Your task to perform on an android device: Search for "amazon basics triple a" on bestbuy, select the first entry, add it to the cart, then select checkout. Image 0: 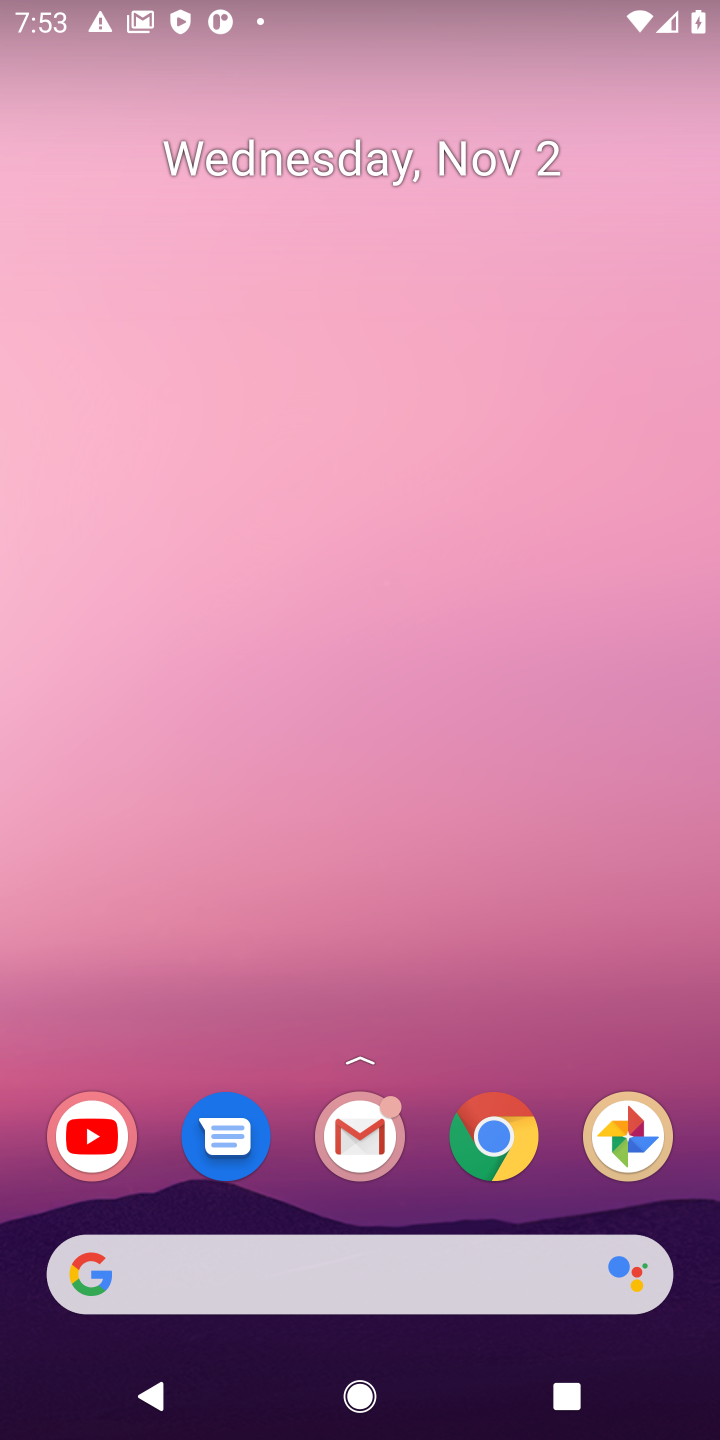
Step 0: drag from (313, 1153) to (315, 95)
Your task to perform on an android device: Search for "amazon basics triple a" on bestbuy, select the first entry, add it to the cart, then select checkout. Image 1: 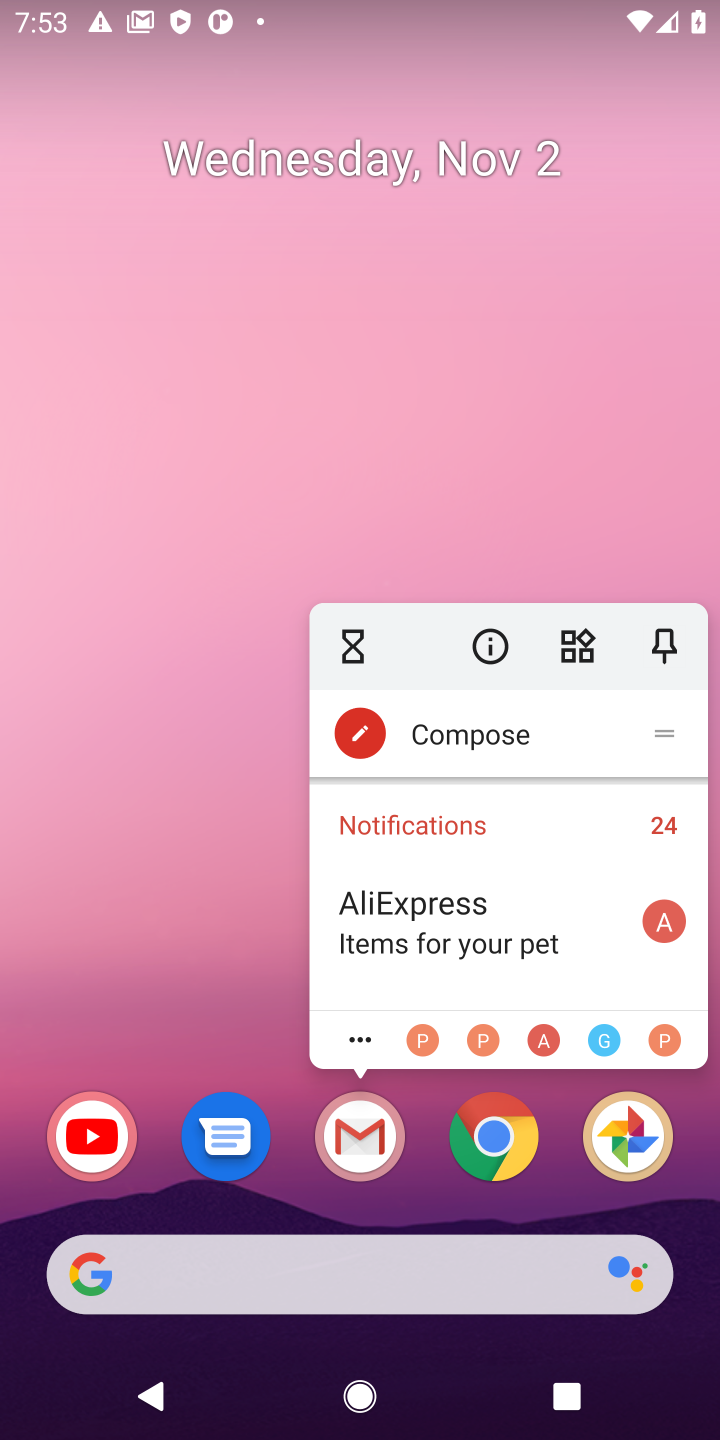
Step 1: click (170, 548)
Your task to perform on an android device: Search for "amazon basics triple a" on bestbuy, select the first entry, add it to the cart, then select checkout. Image 2: 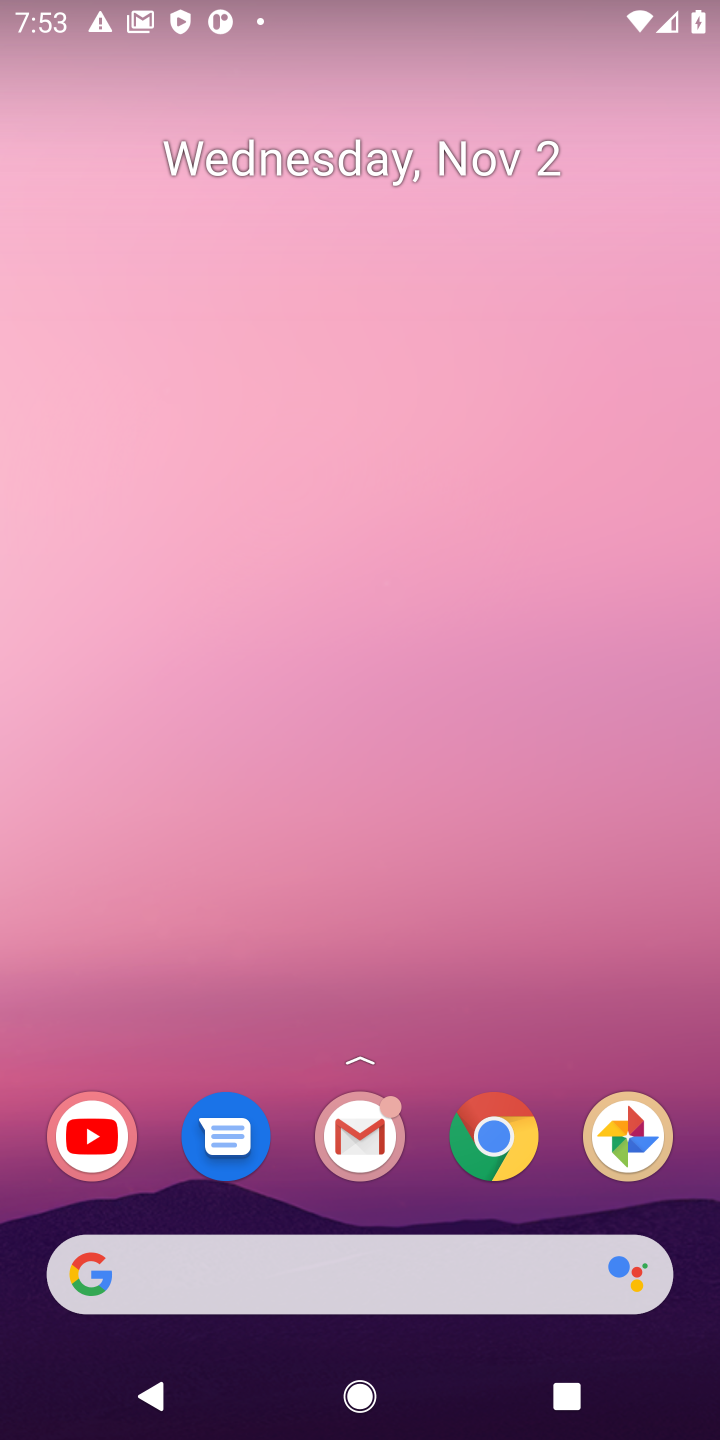
Step 2: drag from (336, 823) to (354, 144)
Your task to perform on an android device: Search for "amazon basics triple a" on bestbuy, select the first entry, add it to the cart, then select checkout. Image 3: 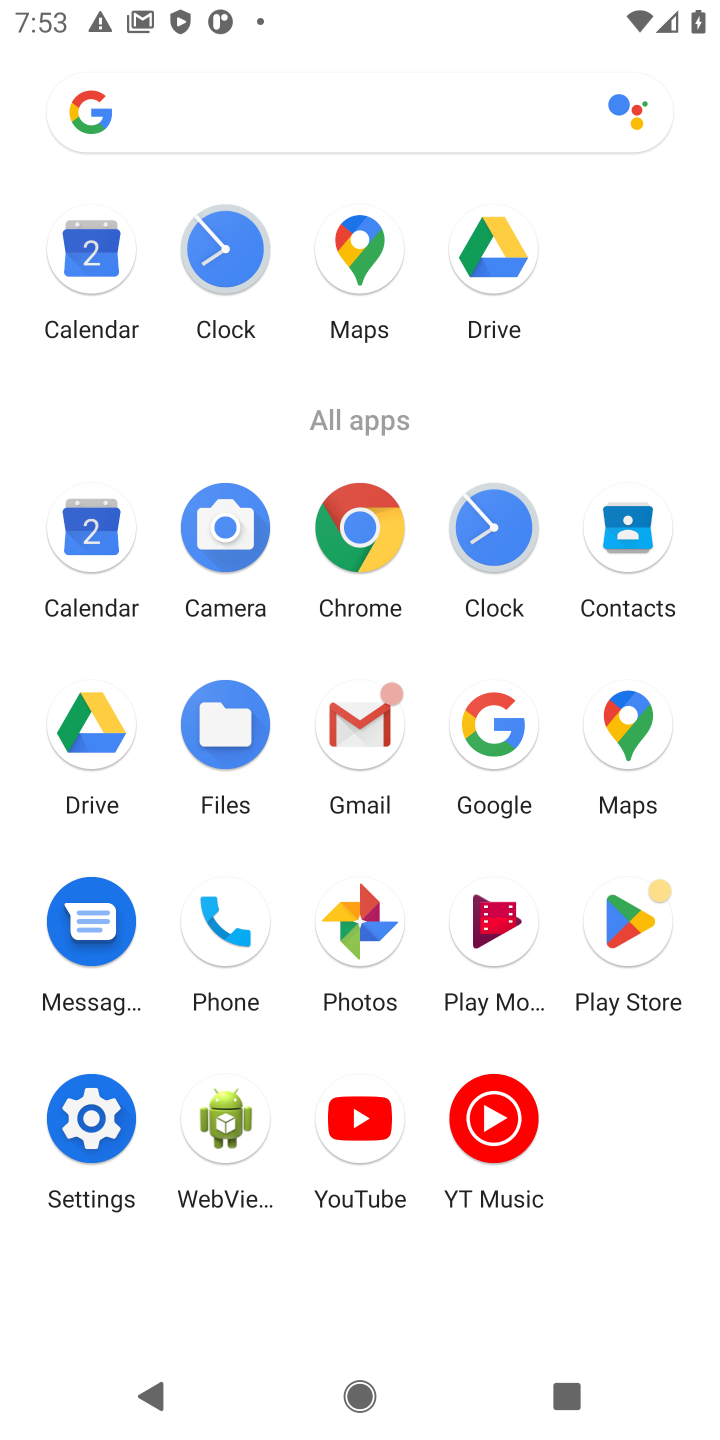
Step 3: click (488, 731)
Your task to perform on an android device: Search for "amazon basics triple a" on bestbuy, select the first entry, add it to the cart, then select checkout. Image 4: 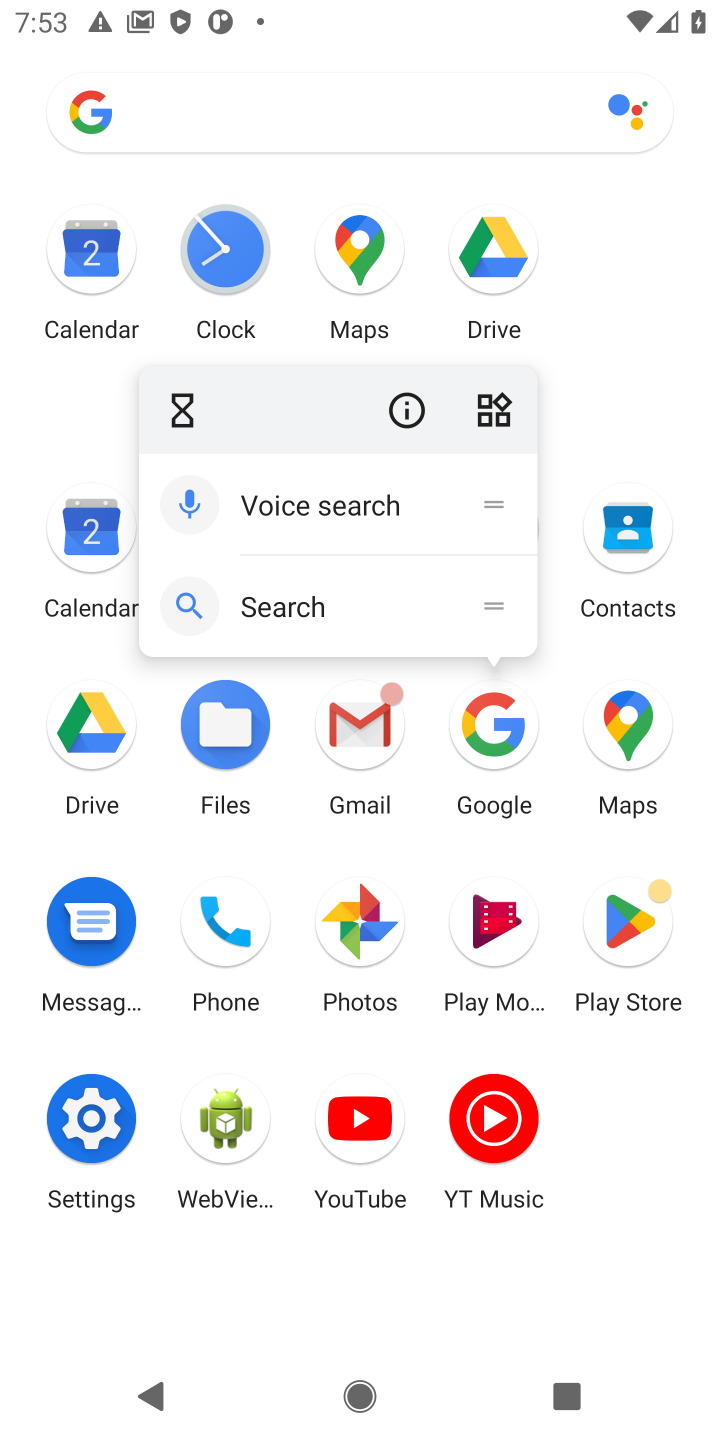
Step 4: click (470, 723)
Your task to perform on an android device: Search for "amazon basics triple a" on bestbuy, select the first entry, add it to the cart, then select checkout. Image 5: 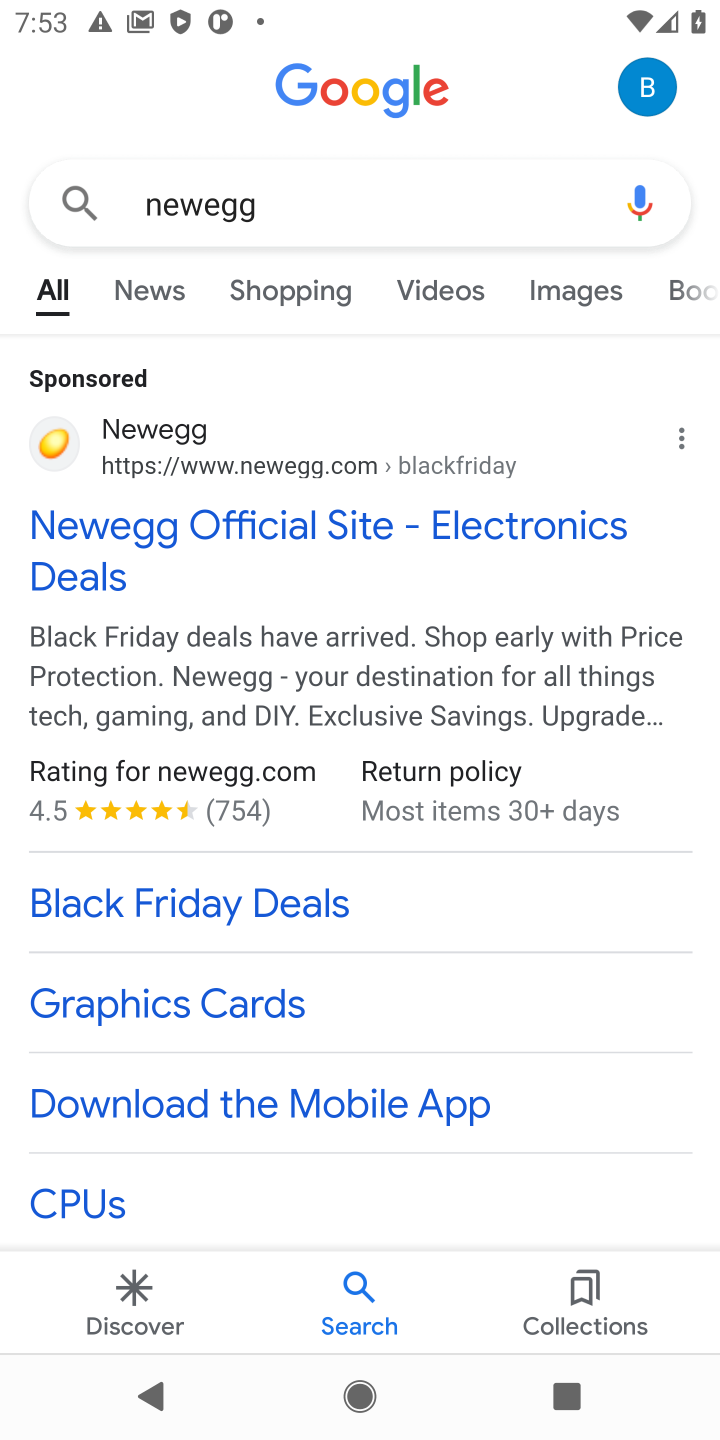
Step 5: click (308, 187)
Your task to perform on an android device: Search for "amazon basics triple a" on bestbuy, select the first entry, add it to the cart, then select checkout. Image 6: 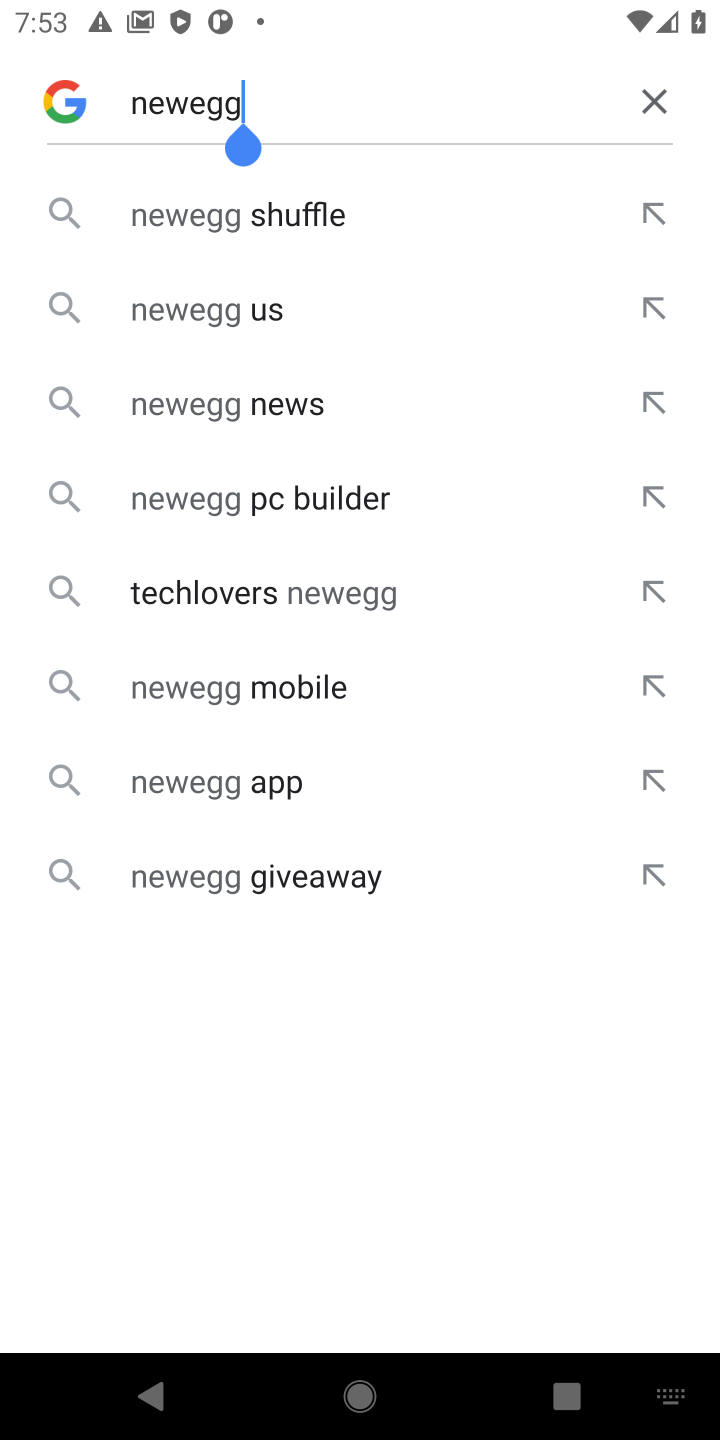
Step 6: click (654, 98)
Your task to perform on an android device: Search for "amazon basics triple a" on bestbuy, select the first entry, add it to the cart, then select checkout. Image 7: 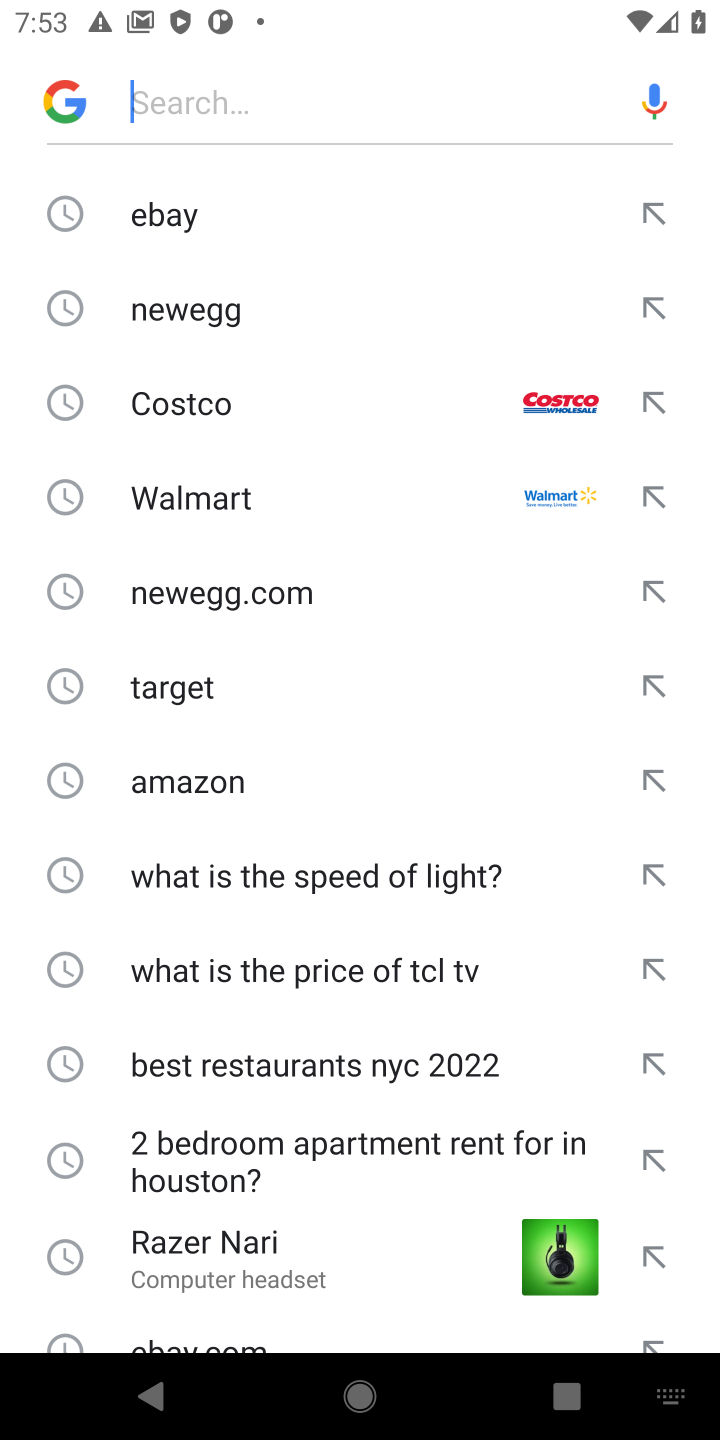
Step 7: click (338, 99)
Your task to perform on an android device: Search for "amazon basics triple a" on bestbuy, select the first entry, add it to the cart, then select checkout. Image 8: 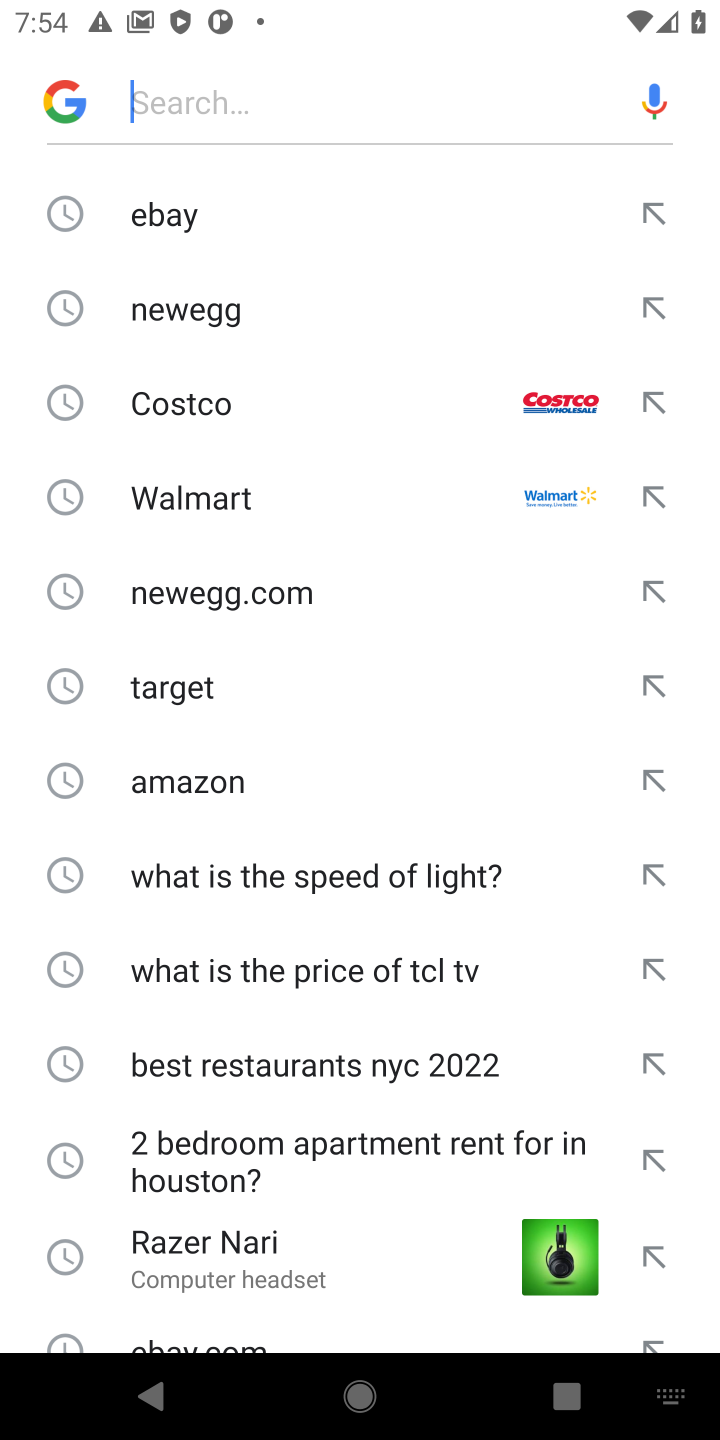
Step 8: type "bestbuy "
Your task to perform on an android device: Search for "amazon basics triple a" on bestbuy, select the first entry, add it to the cart, then select checkout. Image 9: 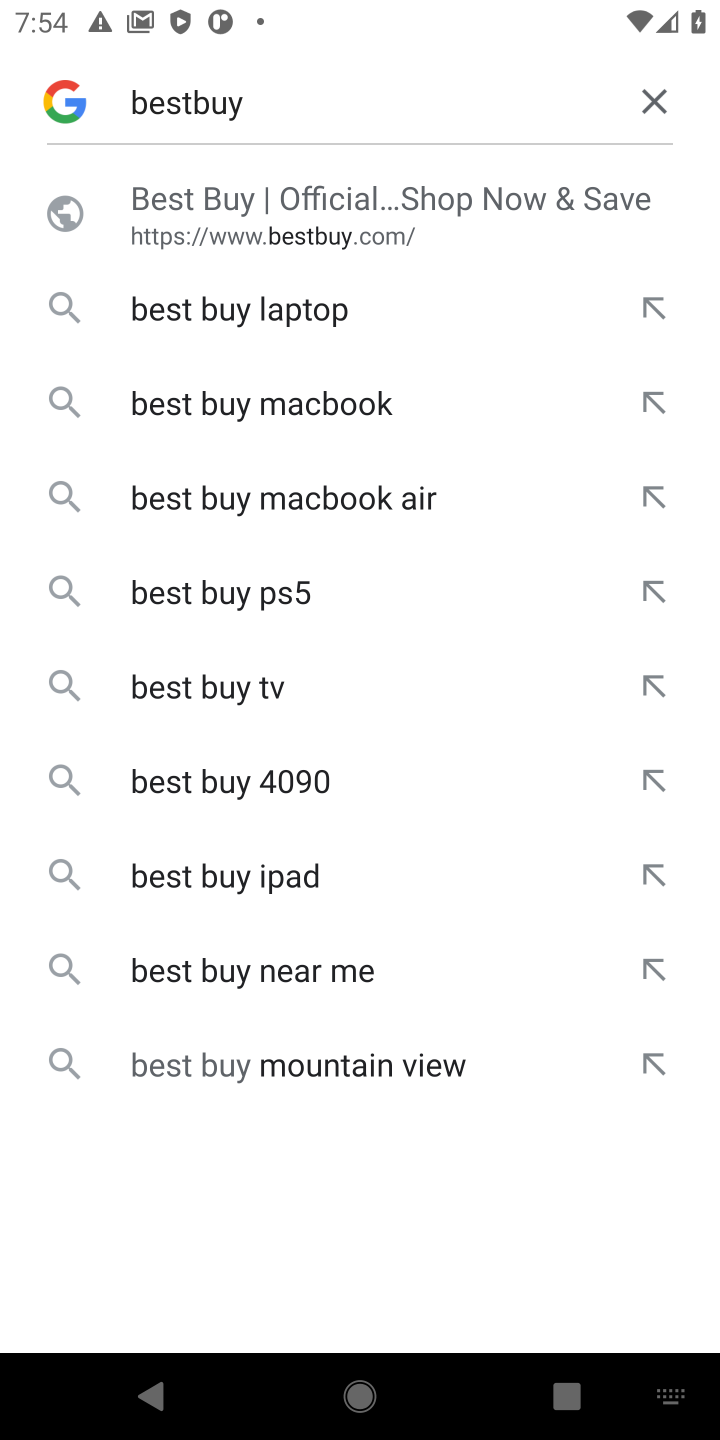
Step 9: click (300, 214)
Your task to perform on an android device: Search for "amazon basics triple a" on bestbuy, select the first entry, add it to the cart, then select checkout. Image 10: 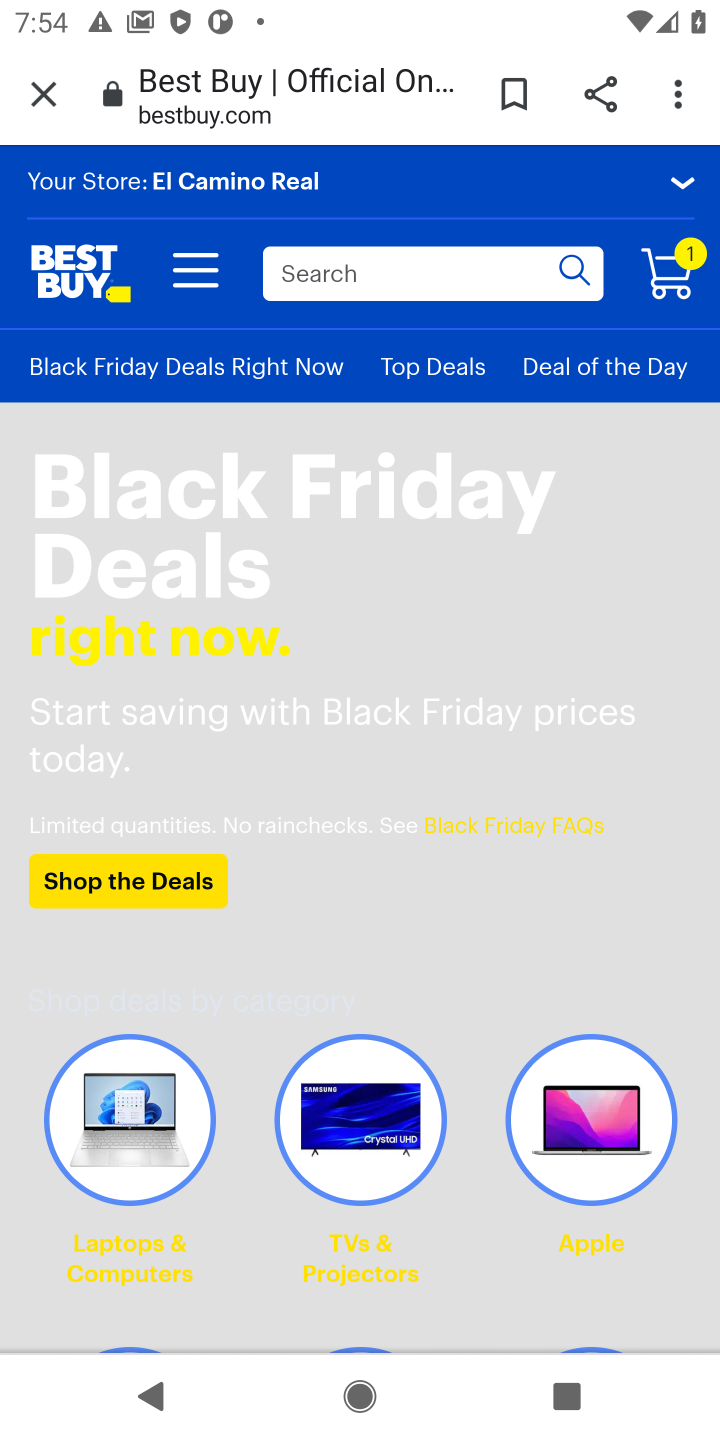
Step 10: click (414, 278)
Your task to perform on an android device: Search for "amazon basics triple a" on bestbuy, select the first entry, add it to the cart, then select checkout. Image 11: 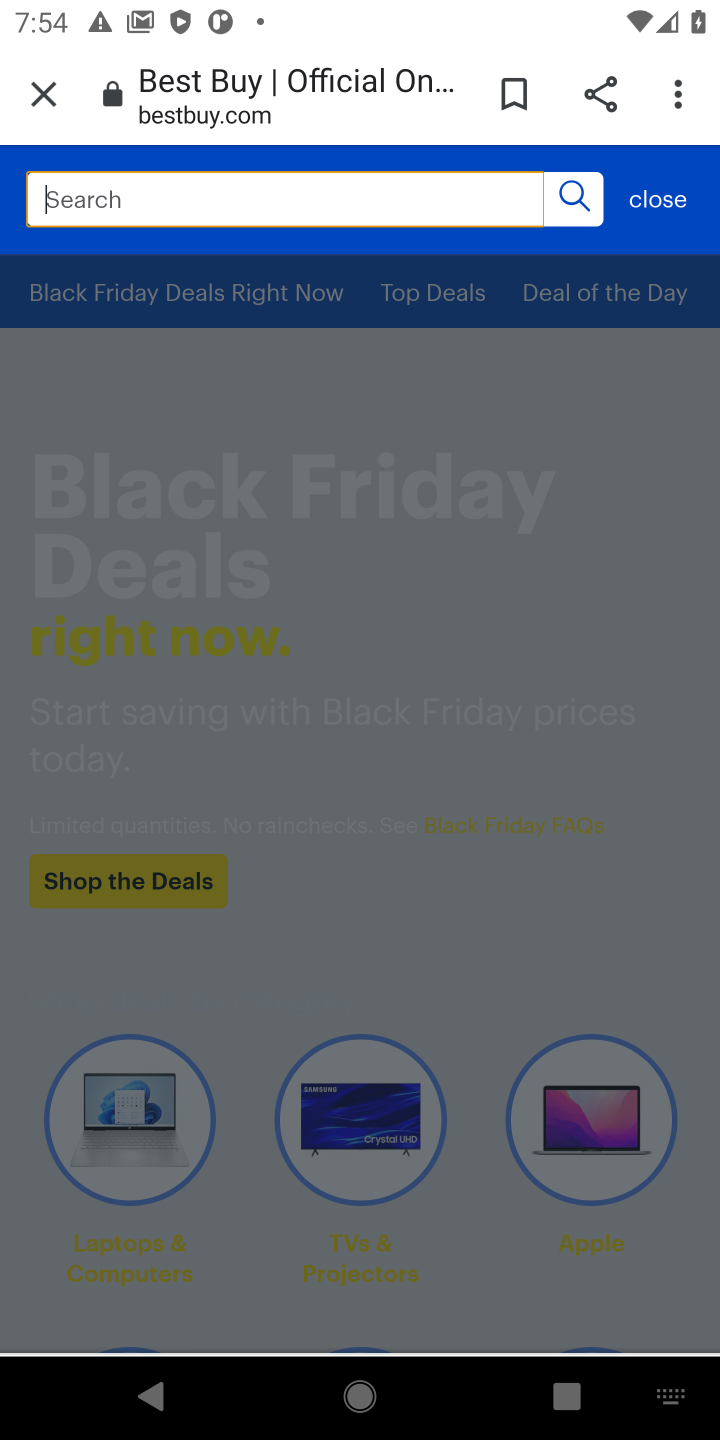
Step 11: click (406, 257)
Your task to perform on an android device: Search for "amazon basics triple a" on bestbuy, select the first entry, add it to the cart, then select checkout. Image 12: 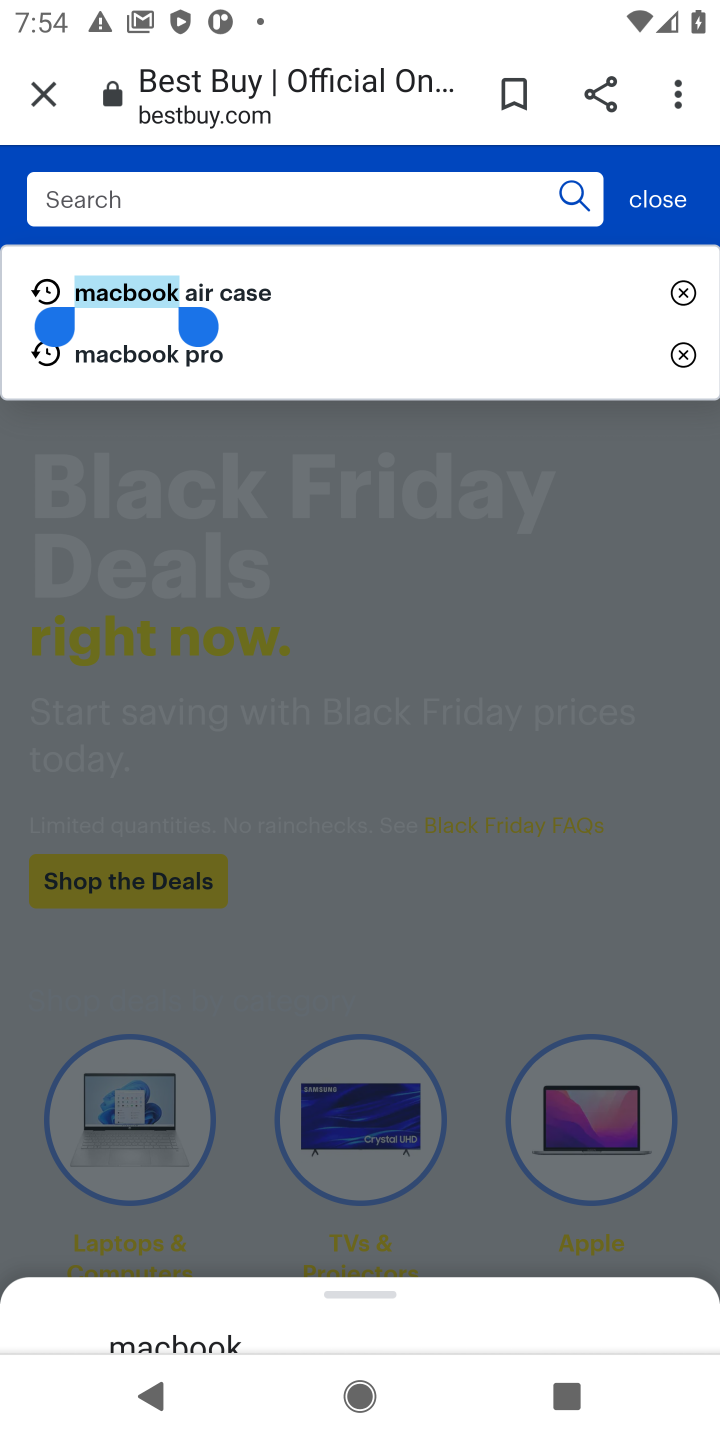
Step 12: click (368, 185)
Your task to perform on an android device: Search for "amazon basics triple a" on bestbuy, select the first entry, add it to the cart, then select checkout. Image 13: 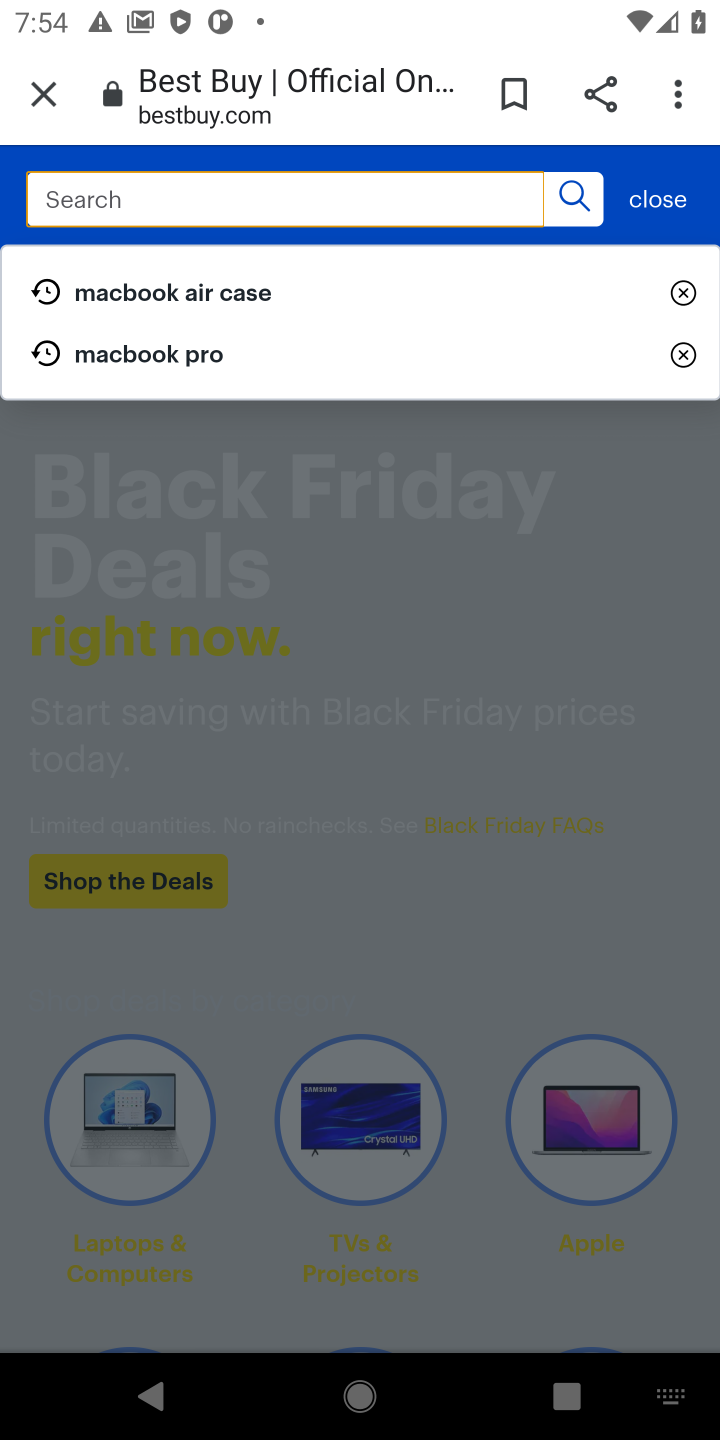
Step 13: type "amazon basics triple "
Your task to perform on an android device: Search for "amazon basics triple a" on bestbuy, select the first entry, add it to the cart, then select checkout. Image 14: 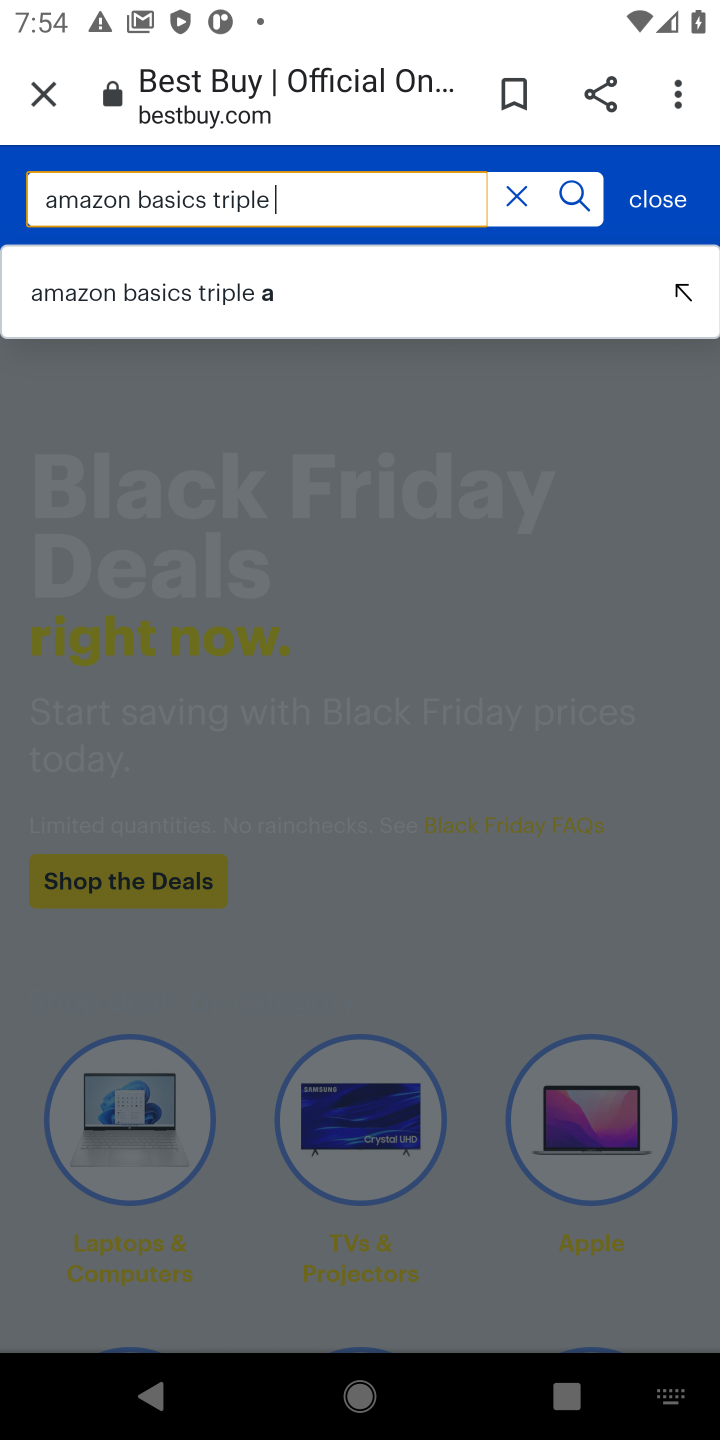
Step 14: click (206, 296)
Your task to perform on an android device: Search for "amazon basics triple a" on bestbuy, select the first entry, add it to the cart, then select checkout. Image 15: 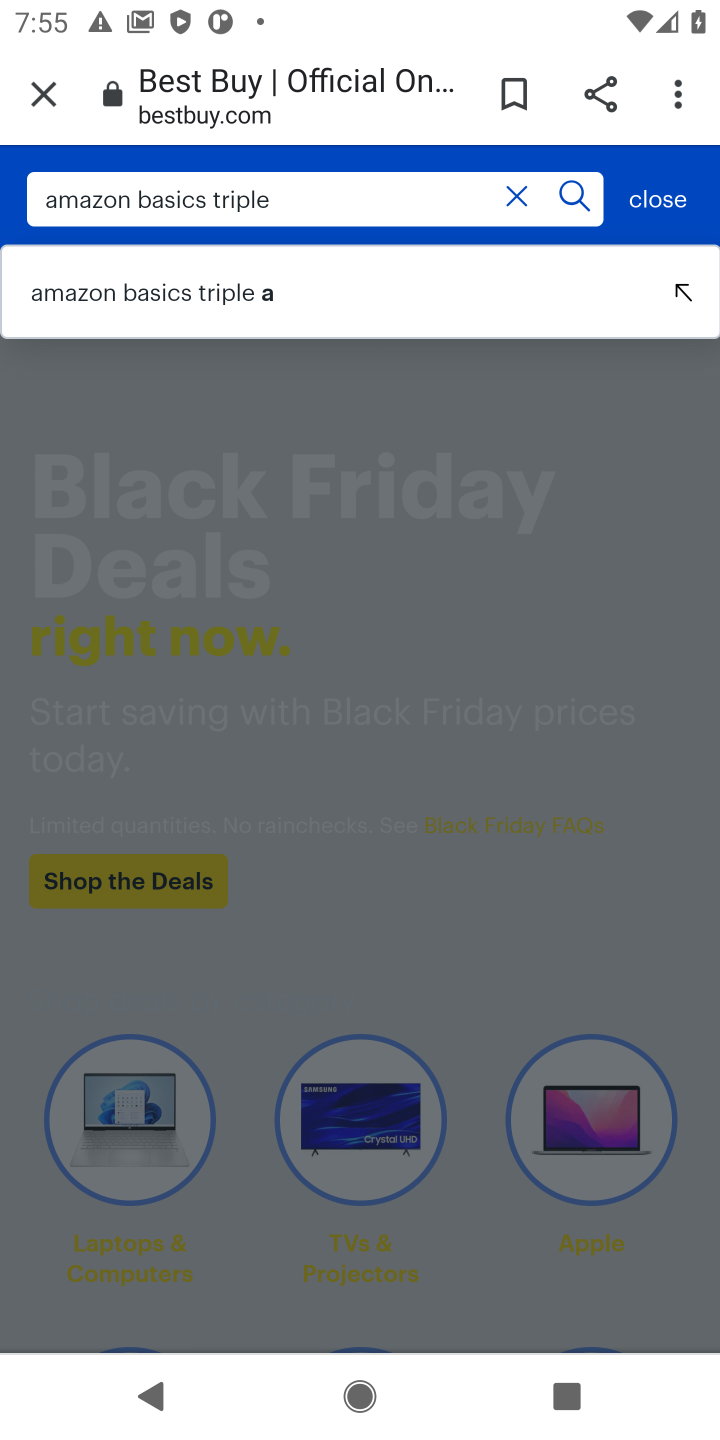
Step 15: click (686, 297)
Your task to perform on an android device: Search for "amazon basics triple a" on bestbuy, select the first entry, add it to the cart, then select checkout. Image 16: 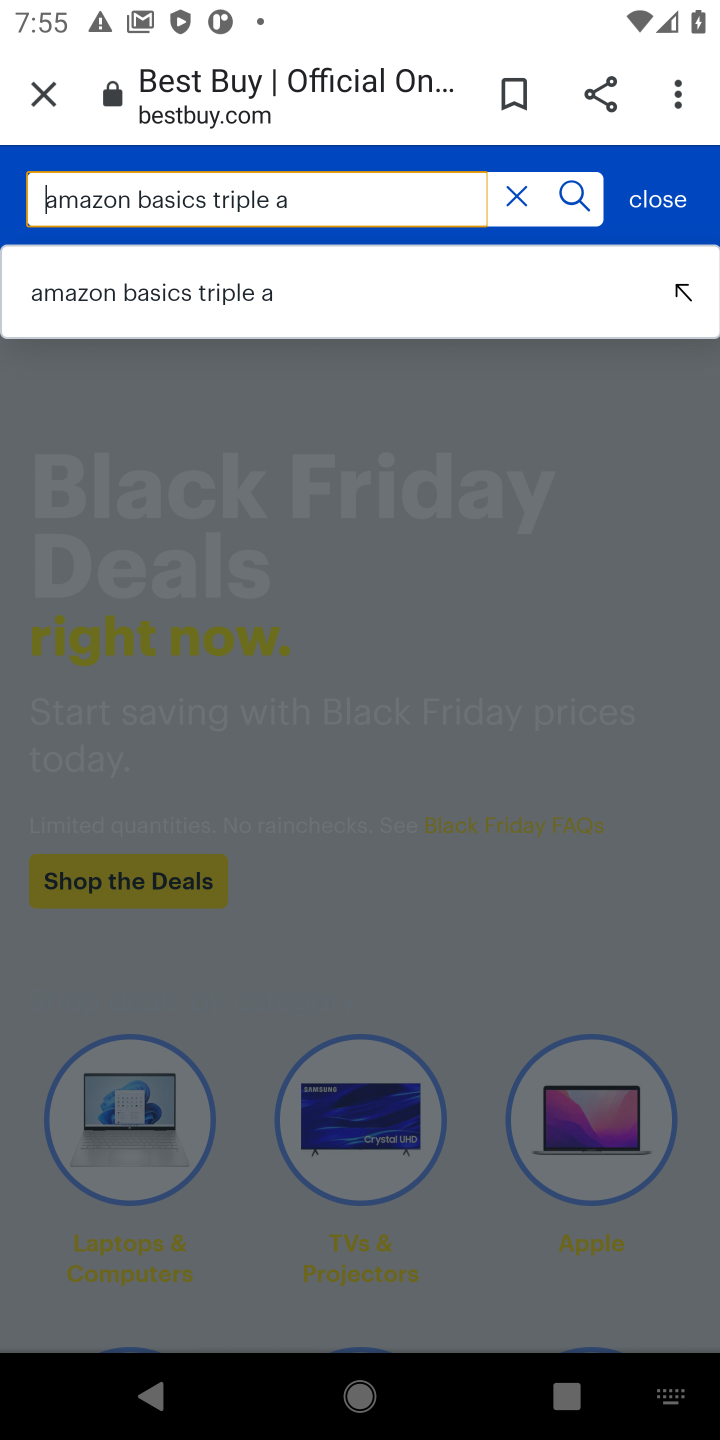
Step 16: click (440, 293)
Your task to perform on an android device: Search for "amazon basics triple a" on bestbuy, select the first entry, add it to the cart, then select checkout. Image 17: 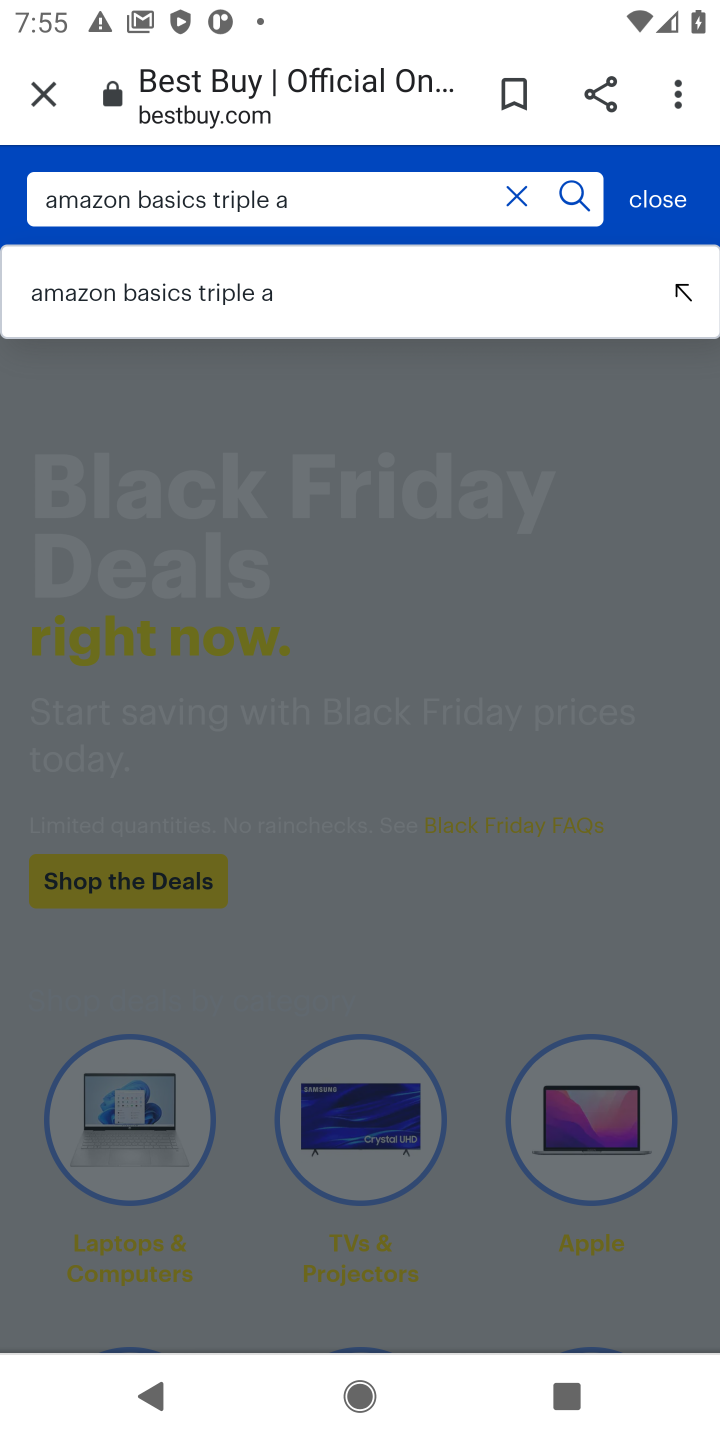
Step 17: click (440, 293)
Your task to perform on an android device: Search for "amazon basics triple a" on bestbuy, select the first entry, add it to the cart, then select checkout. Image 18: 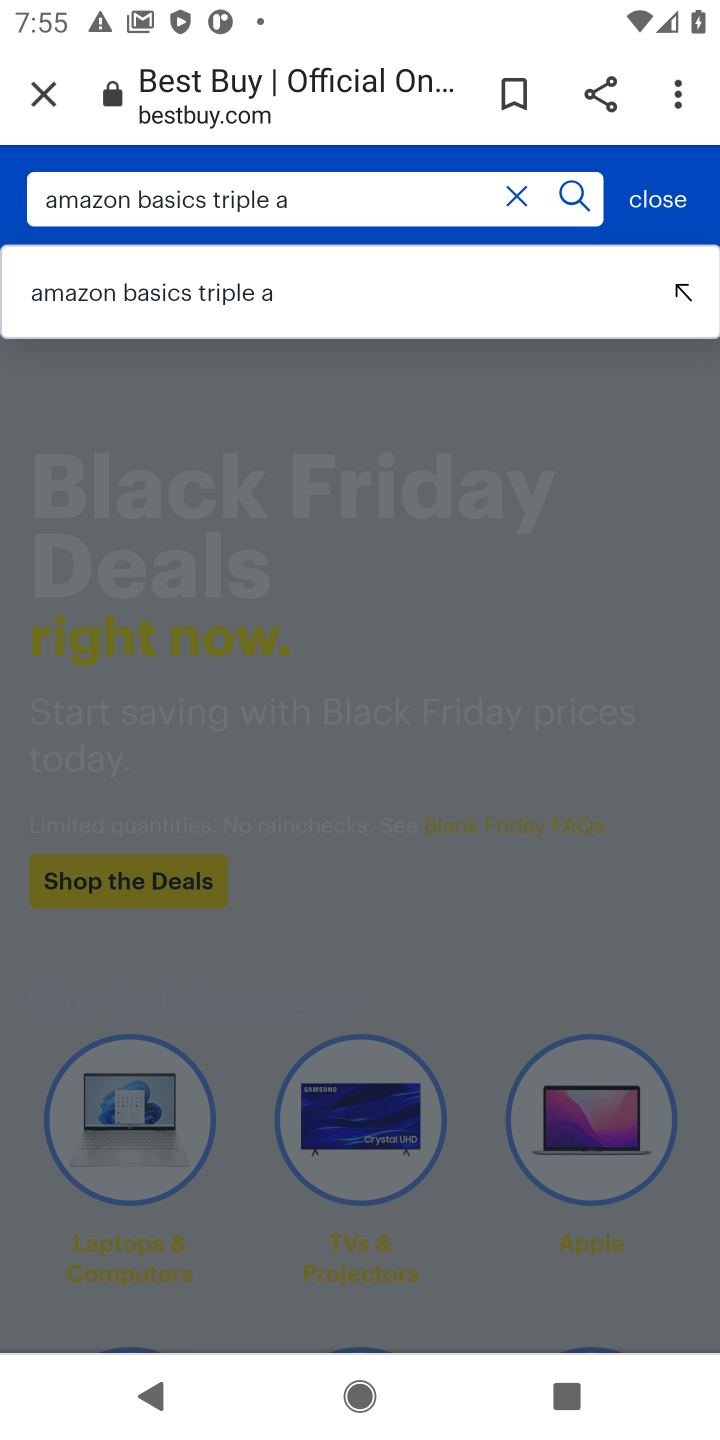
Step 18: click (584, 190)
Your task to perform on an android device: Search for "amazon basics triple a" on bestbuy, select the first entry, add it to the cart, then select checkout. Image 19: 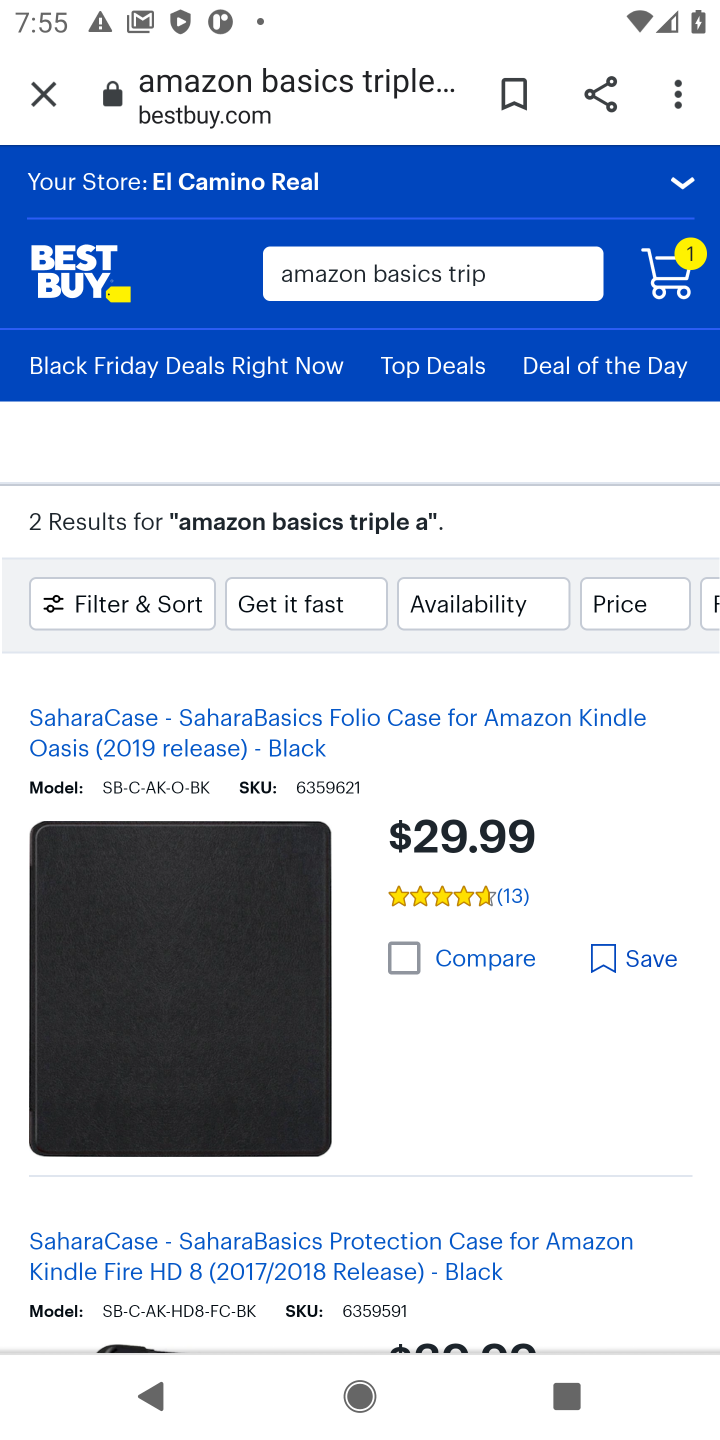
Step 19: drag from (587, 1134) to (649, 666)
Your task to perform on an android device: Search for "amazon basics triple a" on bestbuy, select the first entry, add it to the cart, then select checkout. Image 20: 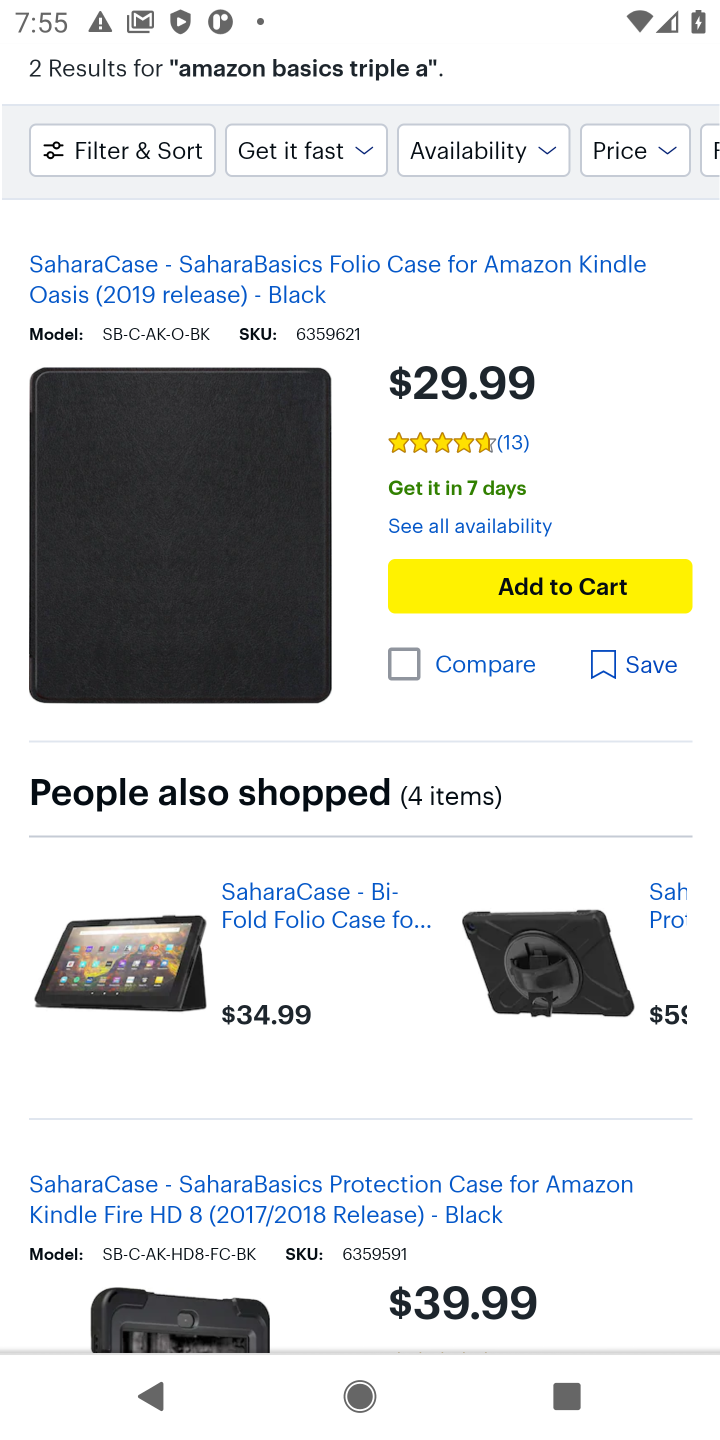
Step 20: click (500, 563)
Your task to perform on an android device: Search for "amazon basics triple a" on bestbuy, select the first entry, add it to the cart, then select checkout. Image 21: 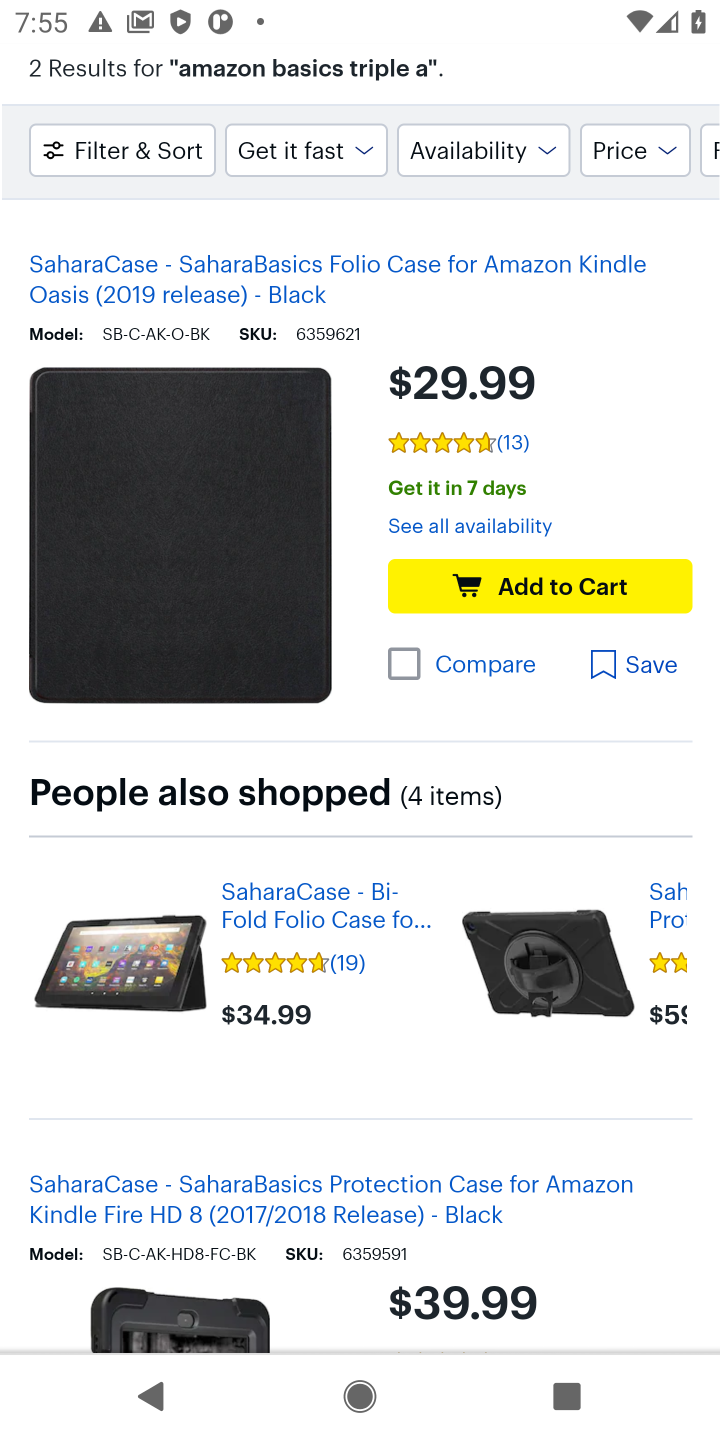
Step 21: task complete